Your task to perform on an android device: Go to calendar. Show me events next week Image 0: 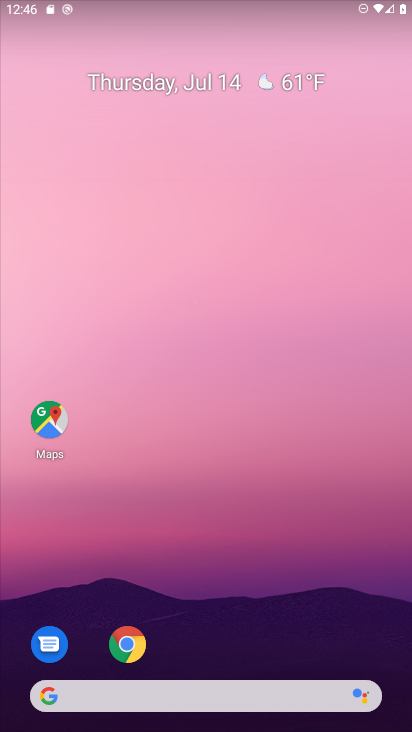
Step 0: drag from (288, 514) to (208, 100)
Your task to perform on an android device: Go to calendar. Show me events next week Image 1: 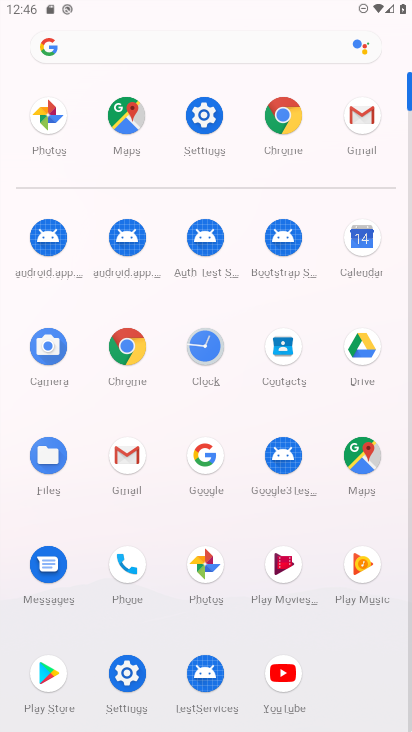
Step 1: click (363, 247)
Your task to perform on an android device: Go to calendar. Show me events next week Image 2: 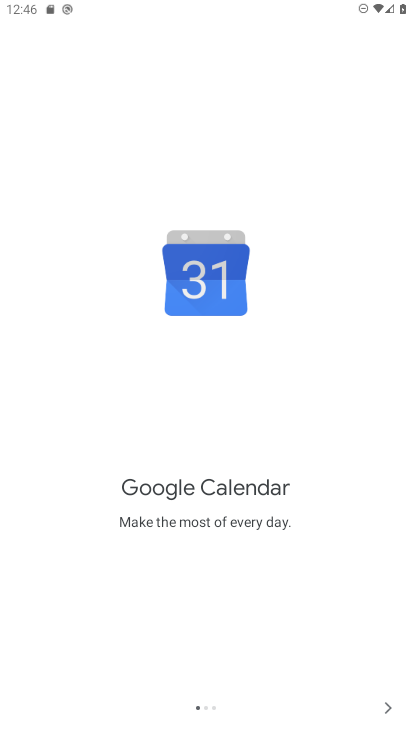
Step 2: click (391, 695)
Your task to perform on an android device: Go to calendar. Show me events next week Image 3: 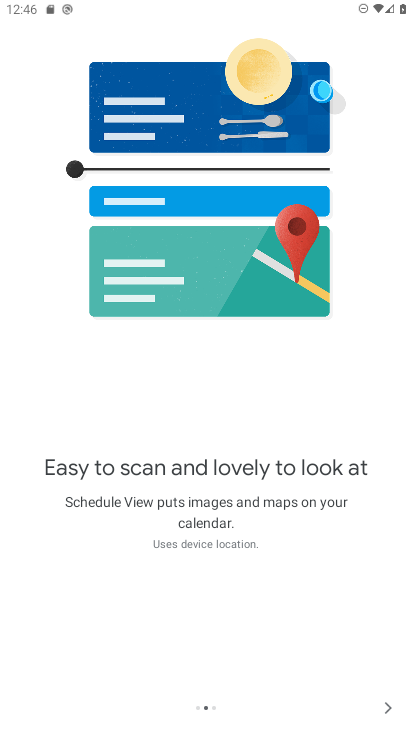
Step 3: click (382, 705)
Your task to perform on an android device: Go to calendar. Show me events next week Image 4: 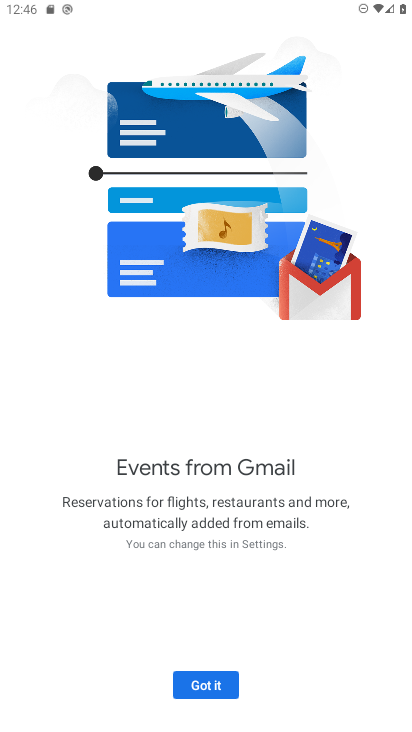
Step 4: click (218, 679)
Your task to perform on an android device: Go to calendar. Show me events next week Image 5: 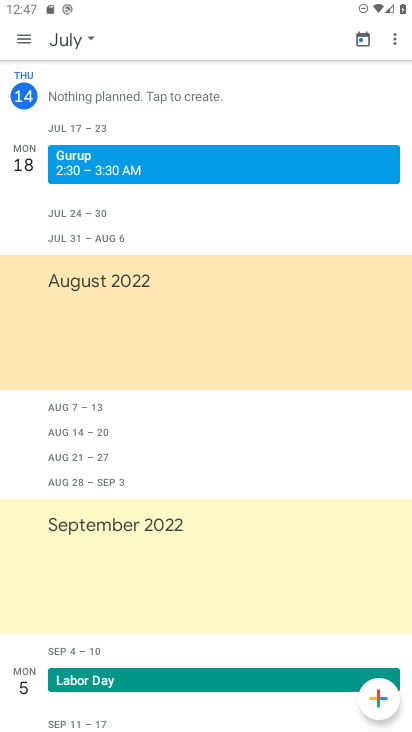
Step 5: click (62, 34)
Your task to perform on an android device: Go to calendar. Show me events next week Image 6: 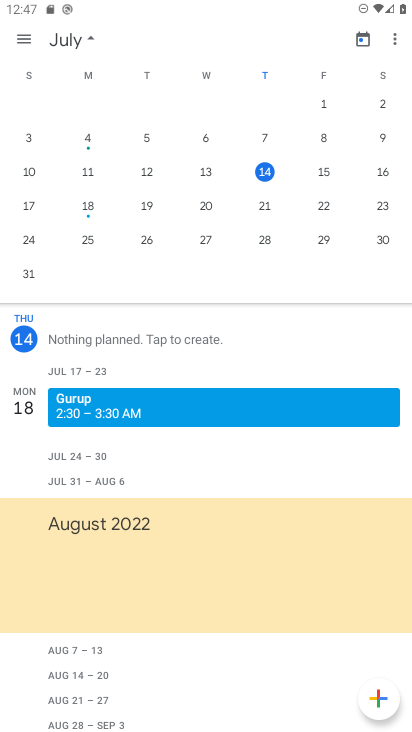
Step 6: click (207, 209)
Your task to perform on an android device: Go to calendar. Show me events next week Image 7: 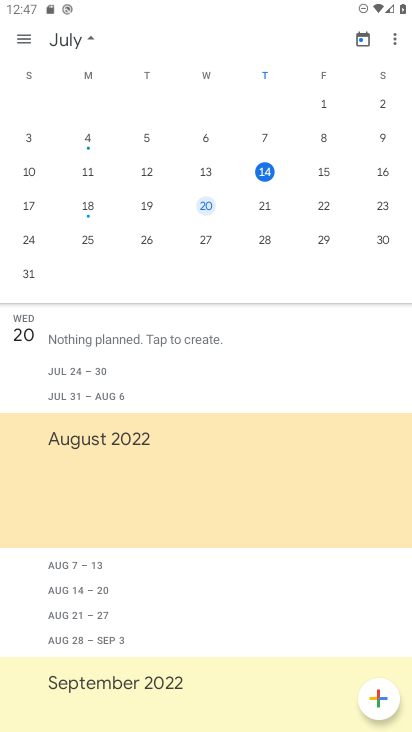
Step 7: click (12, 35)
Your task to perform on an android device: Go to calendar. Show me events next week Image 8: 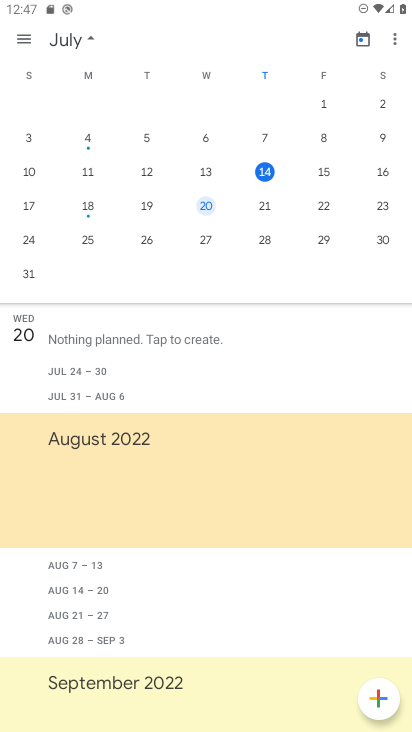
Step 8: click (21, 35)
Your task to perform on an android device: Go to calendar. Show me events next week Image 9: 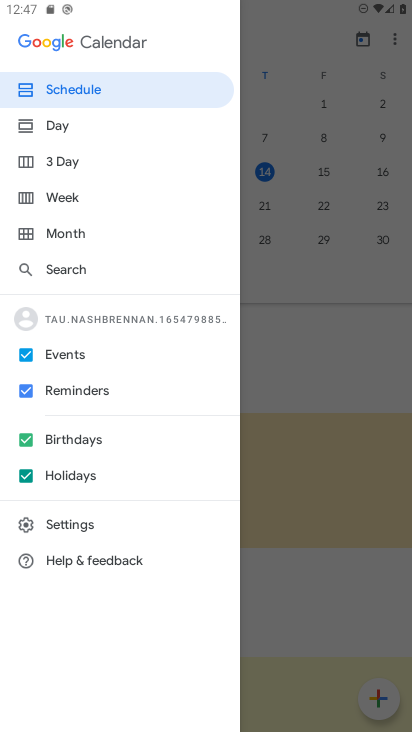
Step 9: click (65, 197)
Your task to perform on an android device: Go to calendar. Show me events next week Image 10: 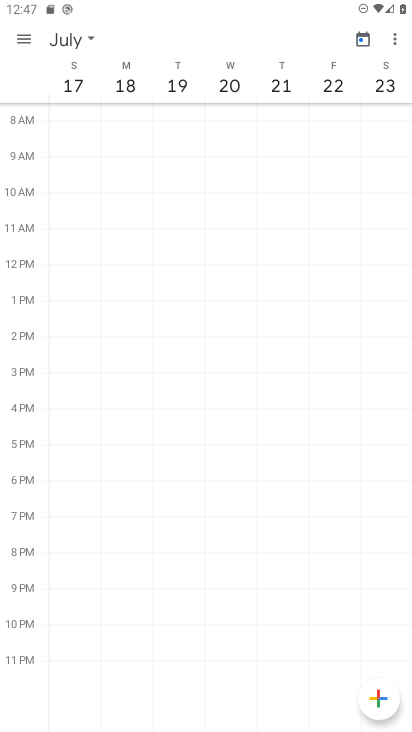
Step 10: task complete